Your task to perform on an android device: Go to accessibility settings Image 0: 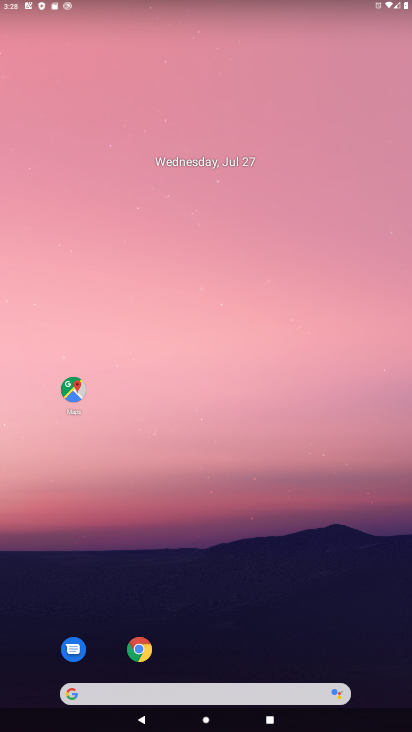
Step 0: drag from (369, 665) to (341, 200)
Your task to perform on an android device: Go to accessibility settings Image 1: 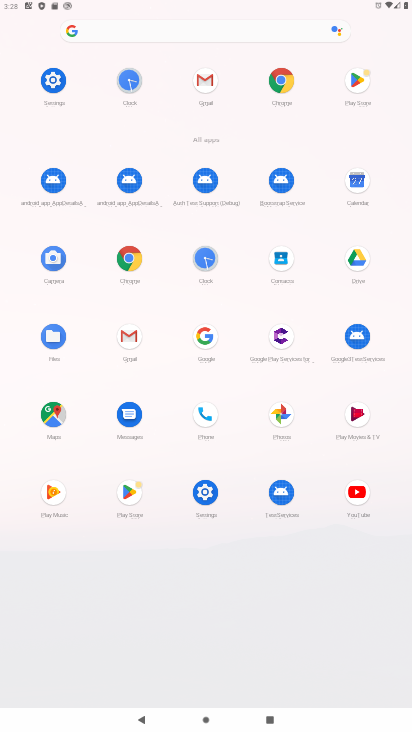
Step 1: click (205, 493)
Your task to perform on an android device: Go to accessibility settings Image 2: 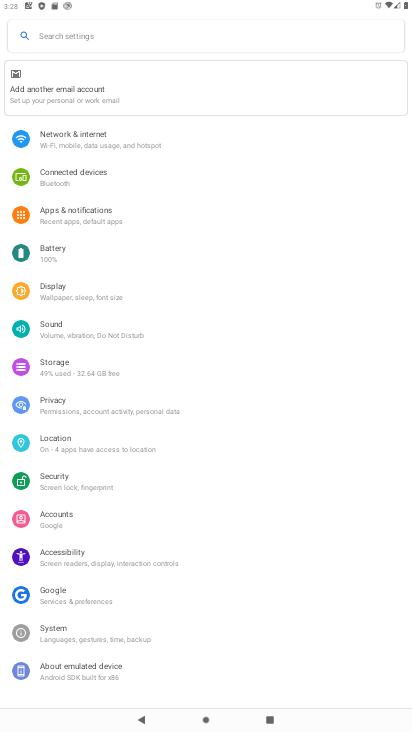
Step 2: click (63, 551)
Your task to perform on an android device: Go to accessibility settings Image 3: 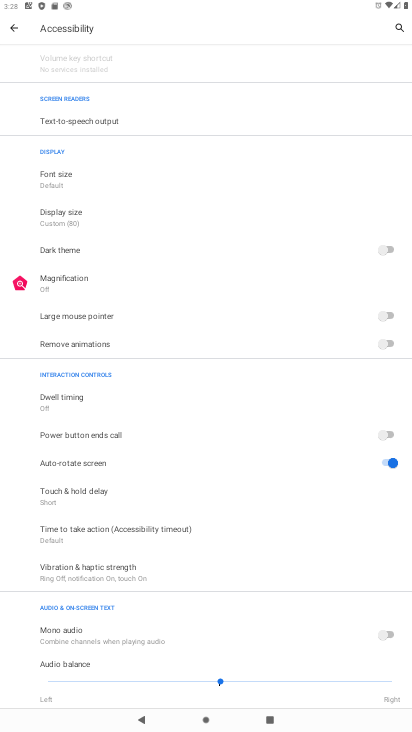
Step 3: task complete